Your task to perform on an android device: What's the weather? Image 0: 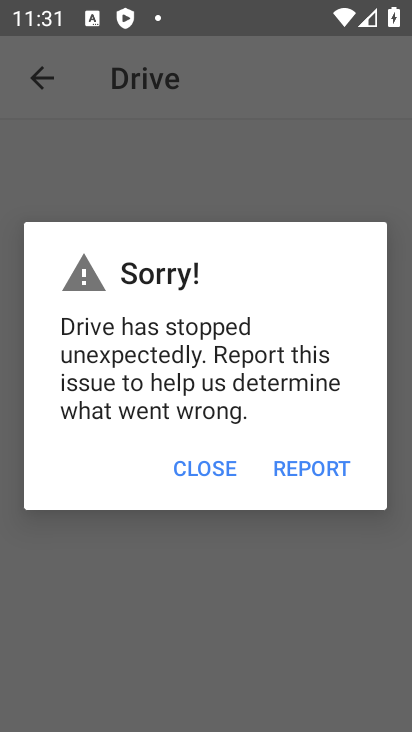
Step 0: press home button
Your task to perform on an android device: What's the weather? Image 1: 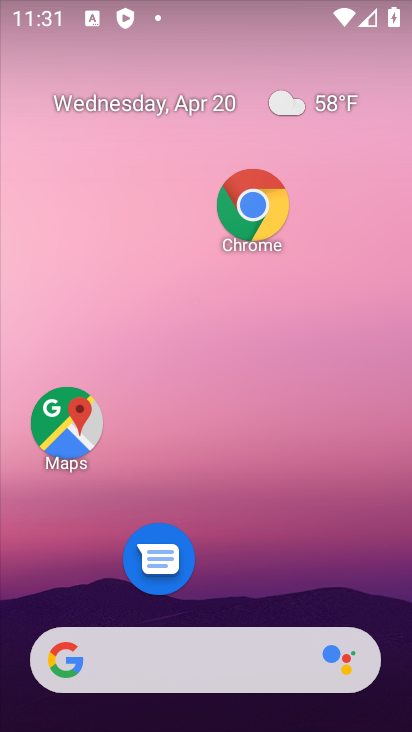
Step 1: drag from (319, 578) to (251, 9)
Your task to perform on an android device: What's the weather? Image 2: 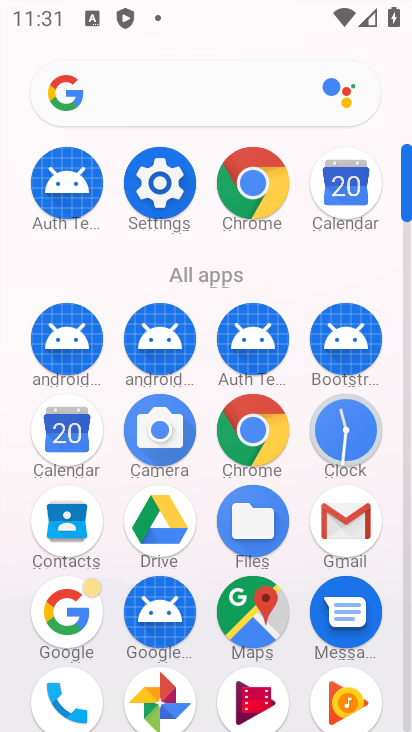
Step 2: drag from (203, 599) to (204, 322)
Your task to perform on an android device: What's the weather? Image 3: 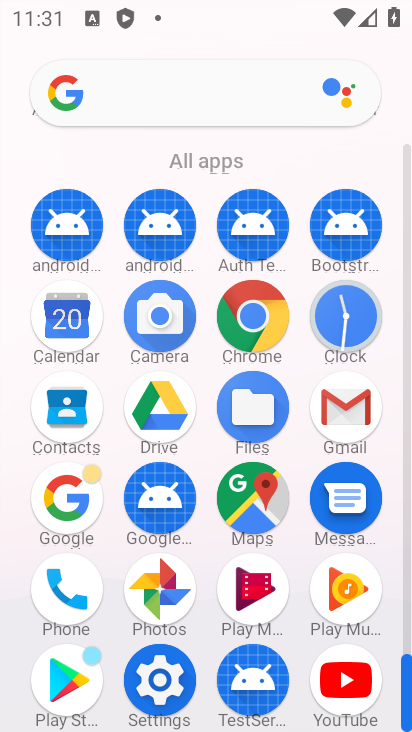
Step 3: click (249, 335)
Your task to perform on an android device: What's the weather? Image 4: 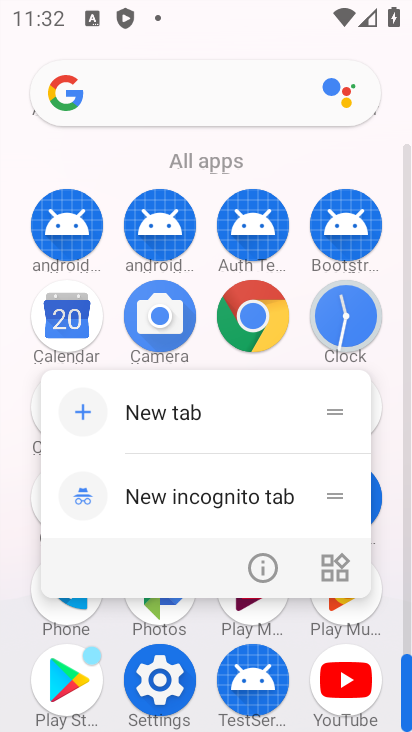
Step 4: click (250, 335)
Your task to perform on an android device: What's the weather? Image 5: 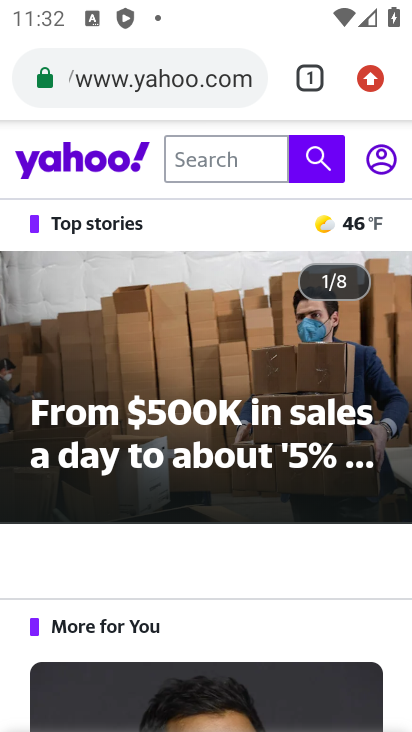
Step 5: click (201, 84)
Your task to perform on an android device: What's the weather? Image 6: 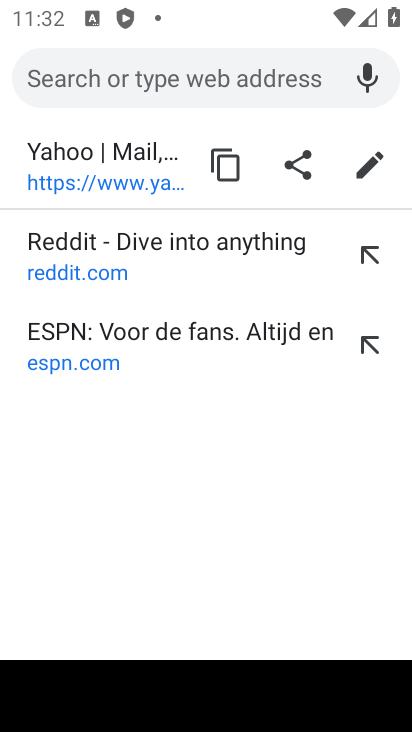
Step 6: click (201, 84)
Your task to perform on an android device: What's the weather? Image 7: 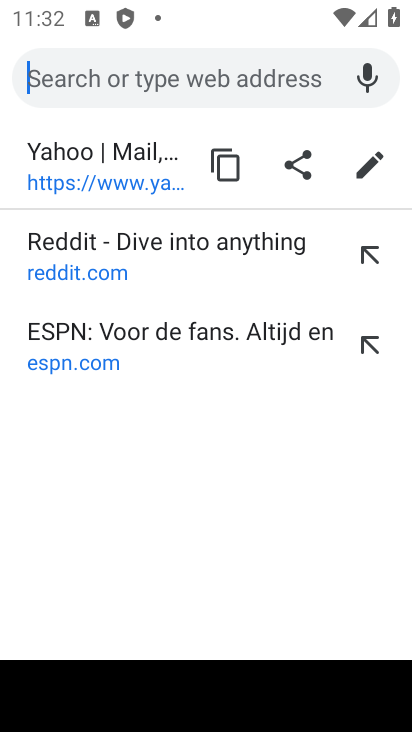
Step 7: type "weather"
Your task to perform on an android device: What's the weather? Image 8: 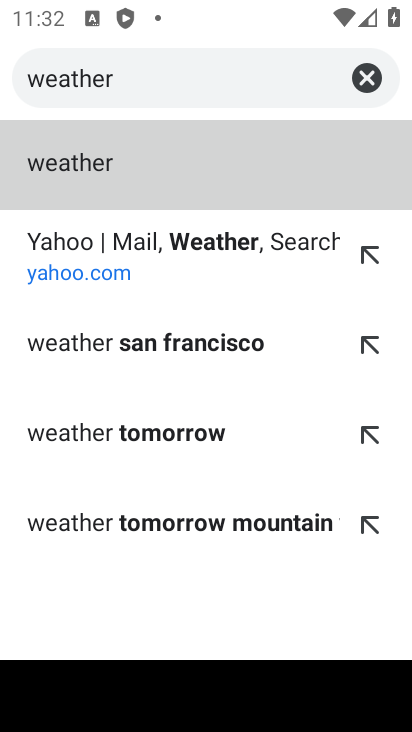
Step 8: click (209, 151)
Your task to perform on an android device: What's the weather? Image 9: 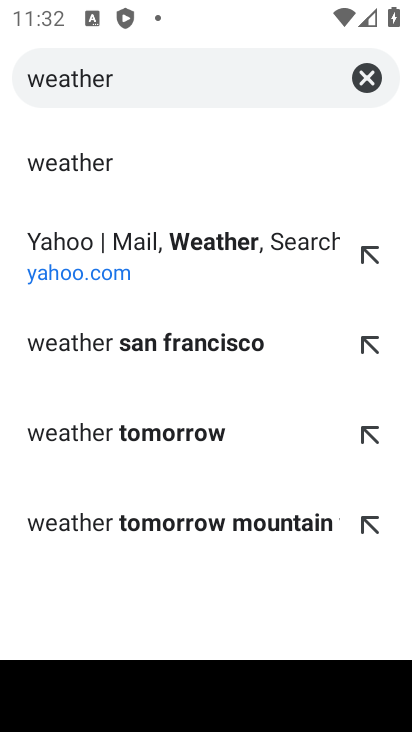
Step 9: click (125, 173)
Your task to perform on an android device: What's the weather? Image 10: 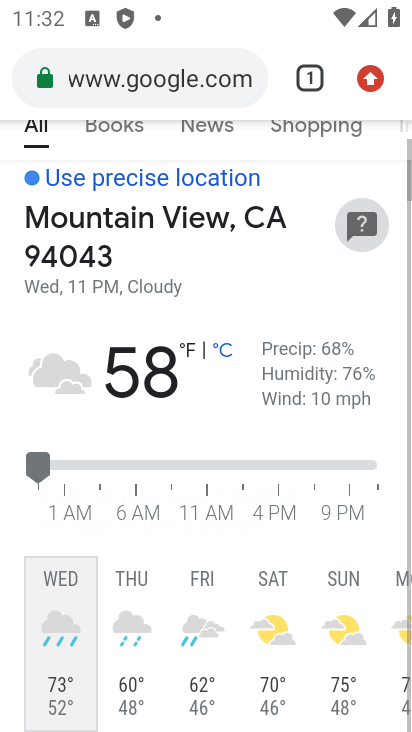
Step 10: task complete